Your task to perform on an android device: uninstall "Firefox Browser" Image 0: 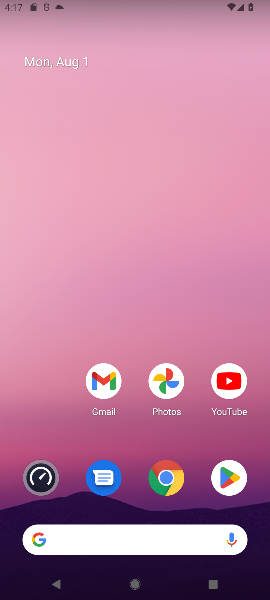
Step 0: press home button
Your task to perform on an android device: uninstall "Firefox Browser" Image 1: 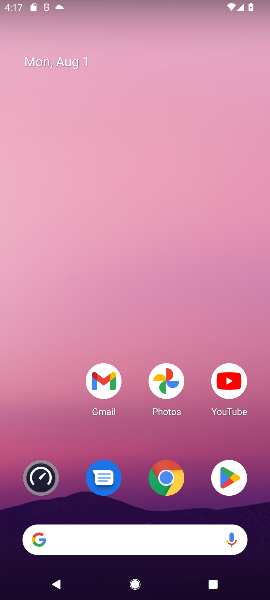
Step 1: click (217, 485)
Your task to perform on an android device: uninstall "Firefox Browser" Image 2: 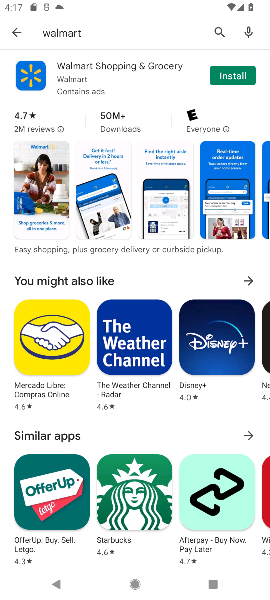
Step 2: click (214, 31)
Your task to perform on an android device: uninstall "Firefox Browser" Image 3: 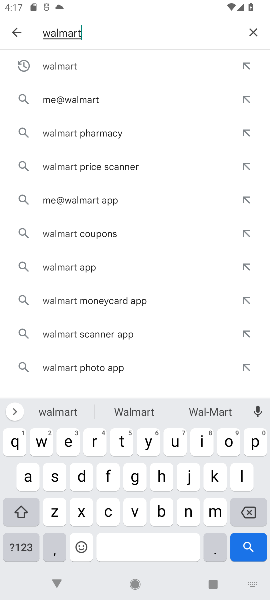
Step 3: click (249, 32)
Your task to perform on an android device: uninstall "Firefox Browser" Image 4: 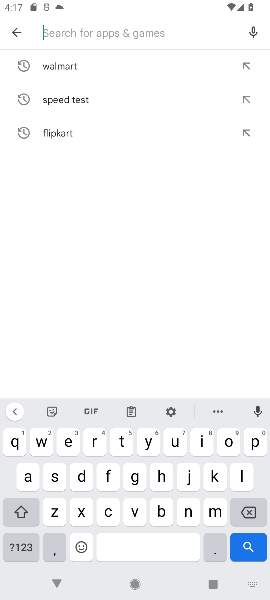
Step 4: click (106, 480)
Your task to perform on an android device: uninstall "Firefox Browser" Image 5: 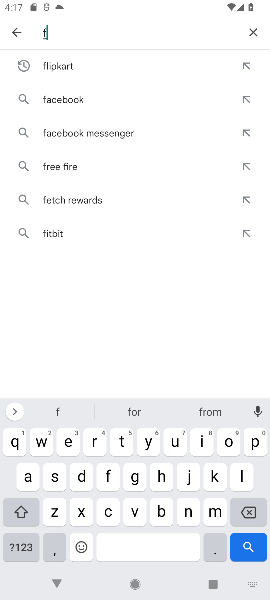
Step 5: click (198, 448)
Your task to perform on an android device: uninstall "Firefox Browser" Image 6: 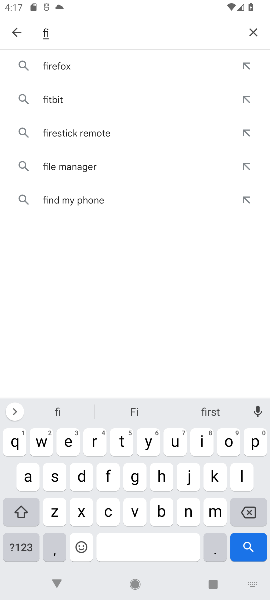
Step 6: click (66, 66)
Your task to perform on an android device: uninstall "Firefox Browser" Image 7: 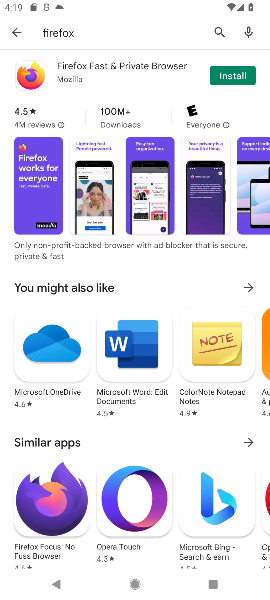
Step 7: task complete